Your task to perform on an android device: What is the recent news? Image 0: 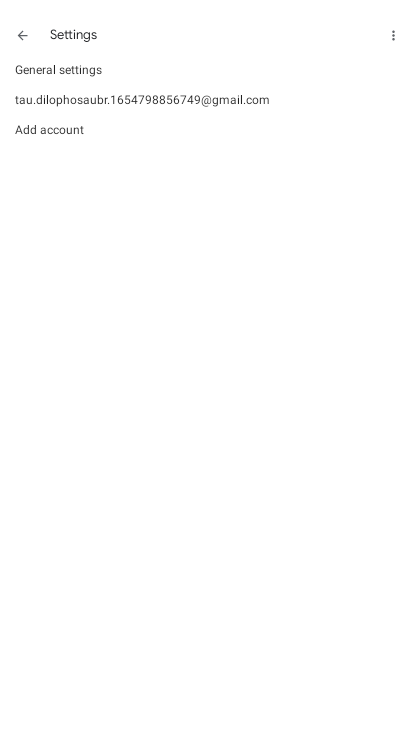
Step 0: press home button
Your task to perform on an android device: What is the recent news? Image 1: 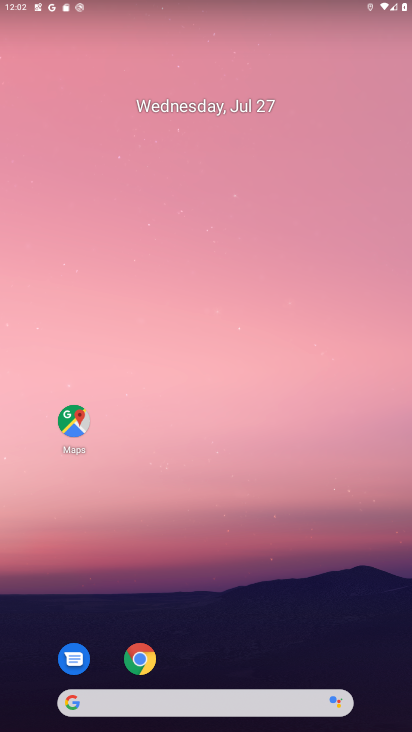
Step 1: drag from (94, 629) to (190, 12)
Your task to perform on an android device: What is the recent news? Image 2: 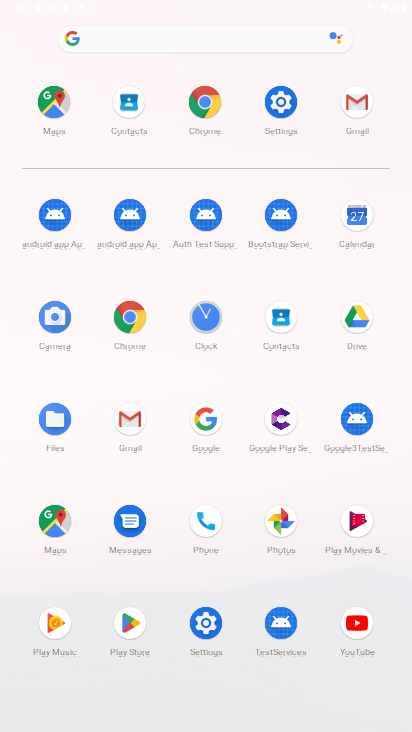
Step 2: click (128, 325)
Your task to perform on an android device: What is the recent news? Image 3: 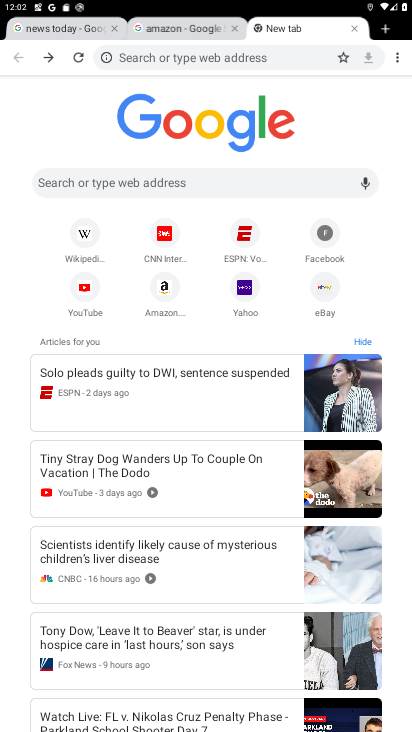
Step 3: click (217, 60)
Your task to perform on an android device: What is the recent news? Image 4: 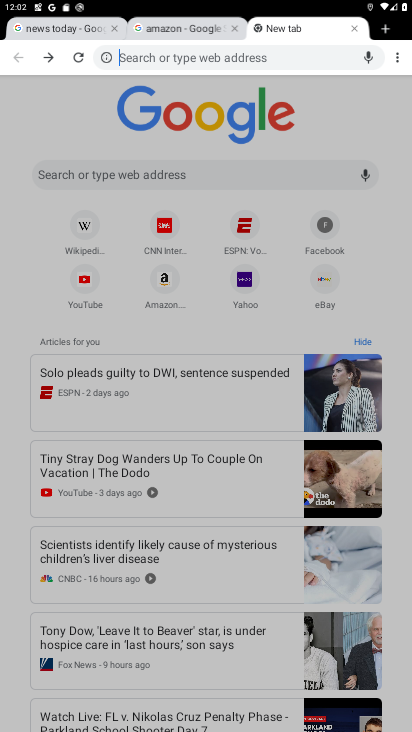
Step 4: click (217, 60)
Your task to perform on an android device: What is the recent news? Image 5: 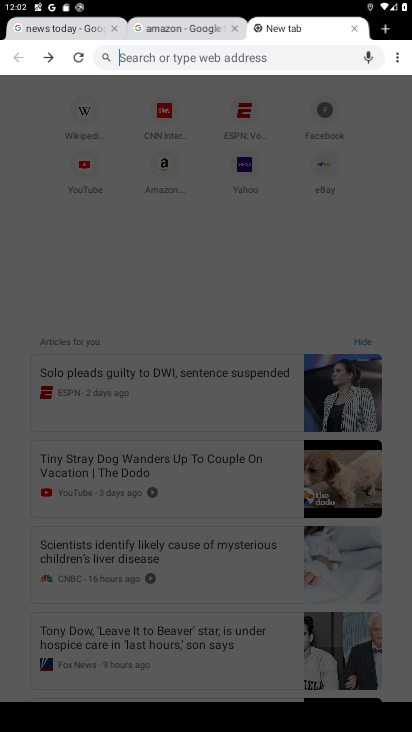
Step 5: type "recent news"
Your task to perform on an android device: What is the recent news? Image 6: 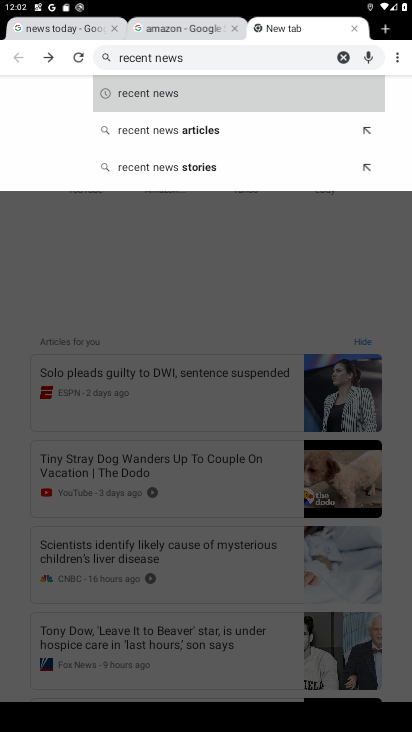
Step 6: click (192, 96)
Your task to perform on an android device: What is the recent news? Image 7: 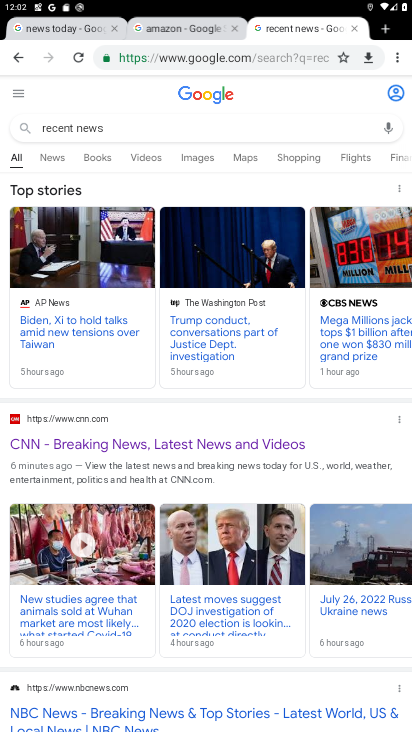
Step 7: task complete